Your task to perform on an android device: Open Google Chrome and click the shortcut for Amazon.com Image 0: 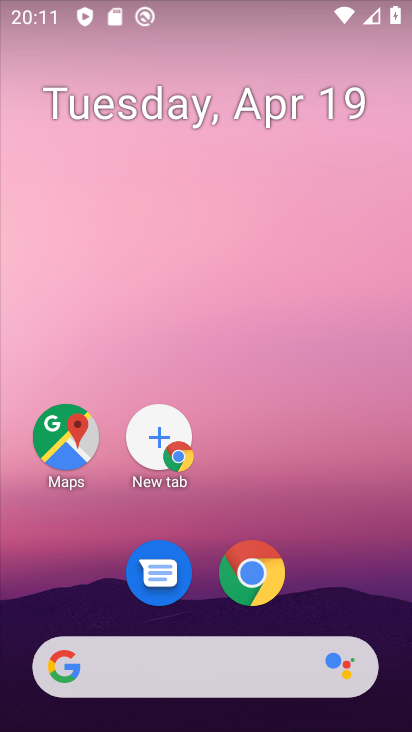
Step 0: click (250, 571)
Your task to perform on an android device: Open Google Chrome and click the shortcut for Amazon.com Image 1: 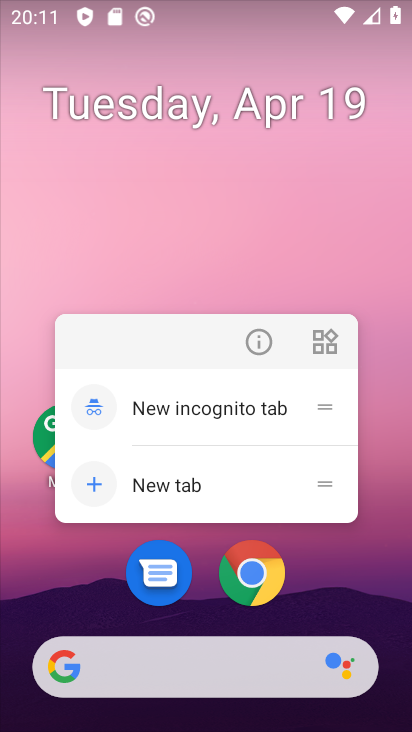
Step 1: click (254, 569)
Your task to perform on an android device: Open Google Chrome and click the shortcut for Amazon.com Image 2: 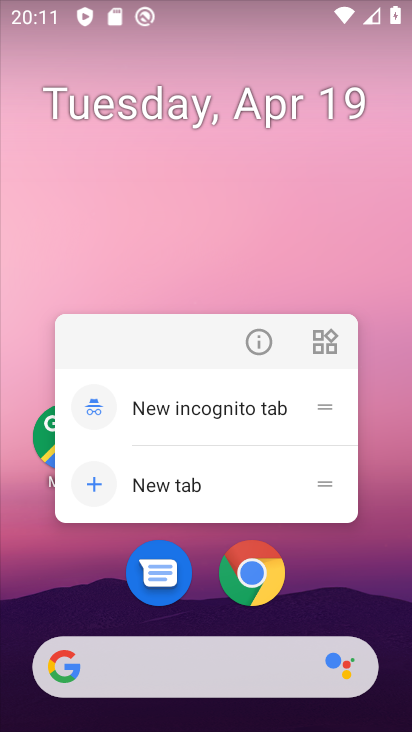
Step 2: click (254, 569)
Your task to perform on an android device: Open Google Chrome and click the shortcut for Amazon.com Image 3: 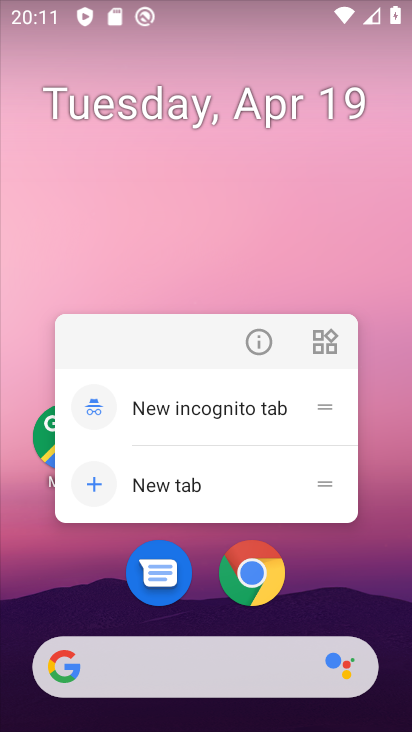
Step 3: click (254, 569)
Your task to perform on an android device: Open Google Chrome and click the shortcut for Amazon.com Image 4: 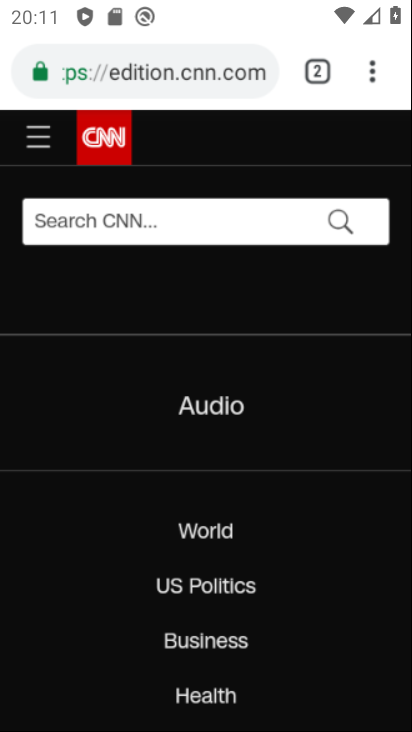
Step 4: click (254, 569)
Your task to perform on an android device: Open Google Chrome and click the shortcut for Amazon.com Image 5: 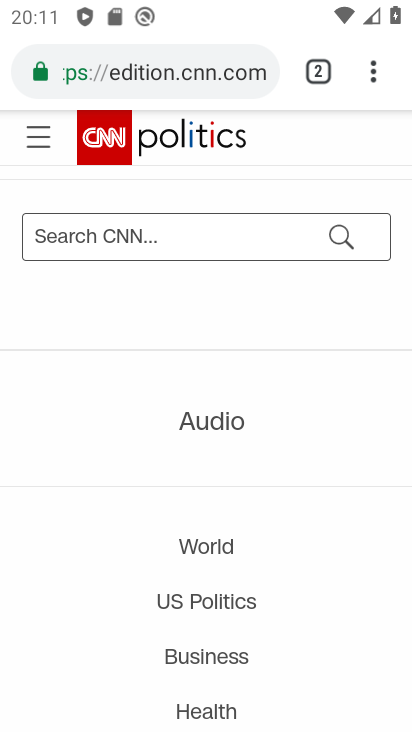
Step 5: click (369, 69)
Your task to perform on an android device: Open Google Chrome and click the shortcut for Amazon.com Image 6: 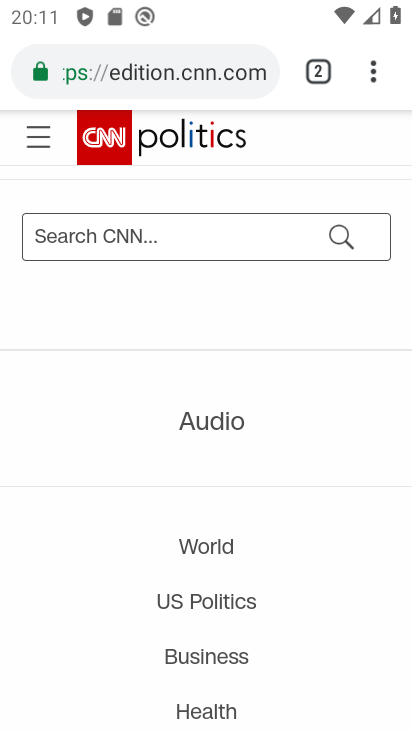
Step 6: click (373, 71)
Your task to perform on an android device: Open Google Chrome and click the shortcut for Amazon.com Image 7: 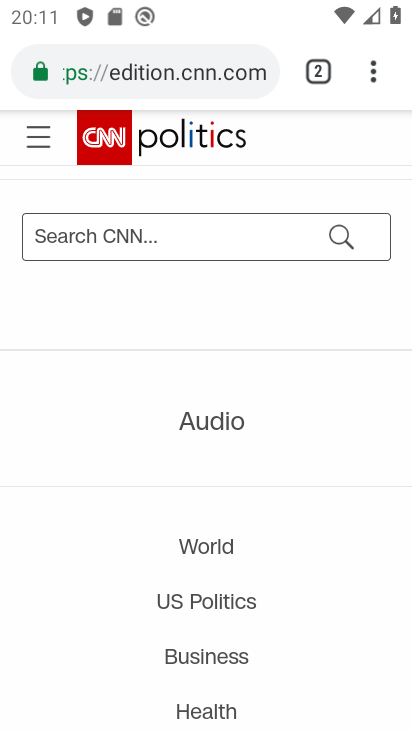
Step 7: click (373, 71)
Your task to perform on an android device: Open Google Chrome and click the shortcut for Amazon.com Image 8: 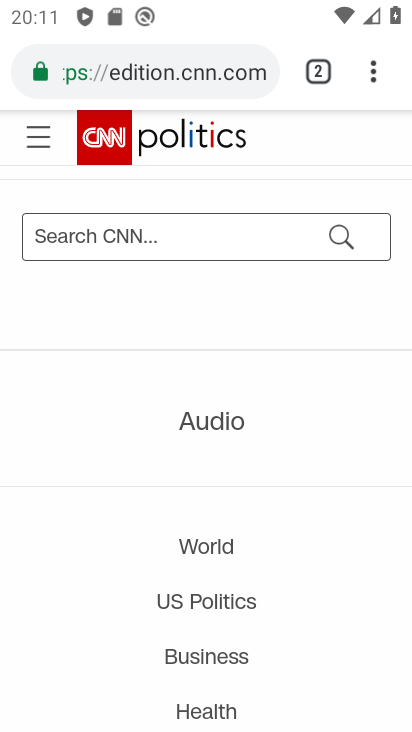
Step 8: click (371, 68)
Your task to perform on an android device: Open Google Chrome and click the shortcut for Amazon.com Image 9: 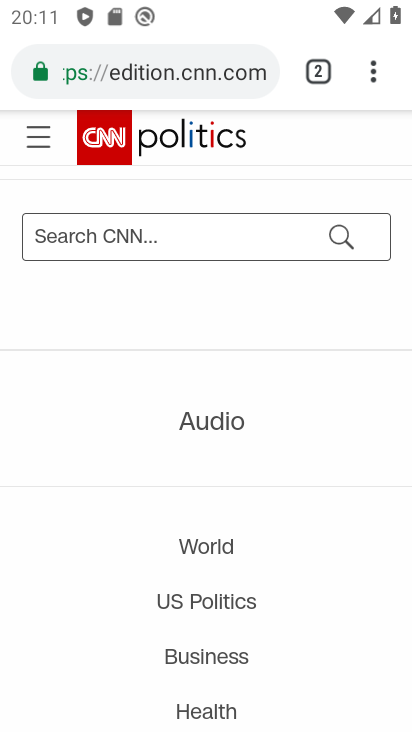
Step 9: click (371, 68)
Your task to perform on an android device: Open Google Chrome and click the shortcut for Amazon.com Image 10: 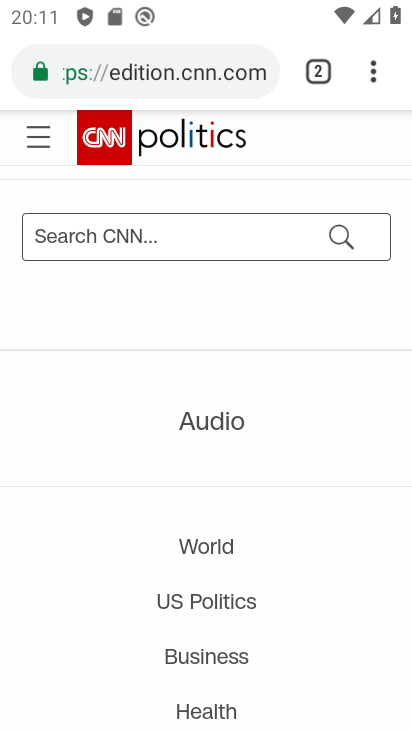
Step 10: click (371, 68)
Your task to perform on an android device: Open Google Chrome and click the shortcut for Amazon.com Image 11: 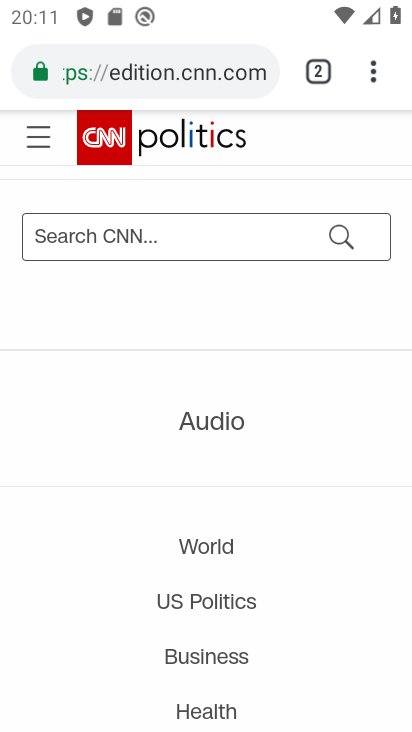
Step 11: click (374, 64)
Your task to perform on an android device: Open Google Chrome and click the shortcut for Amazon.com Image 12: 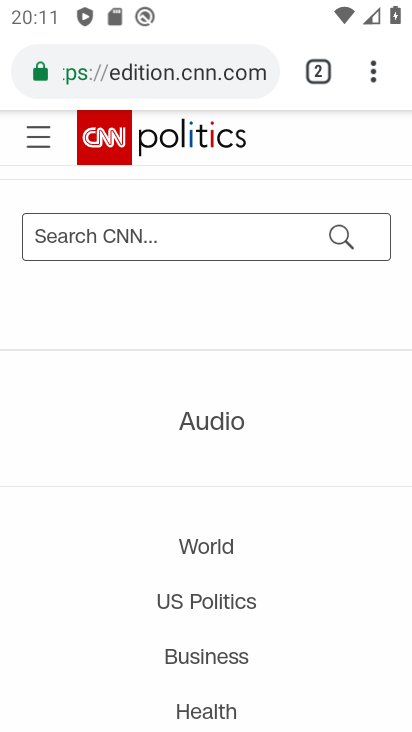
Step 12: click (372, 69)
Your task to perform on an android device: Open Google Chrome and click the shortcut for Amazon.com Image 13: 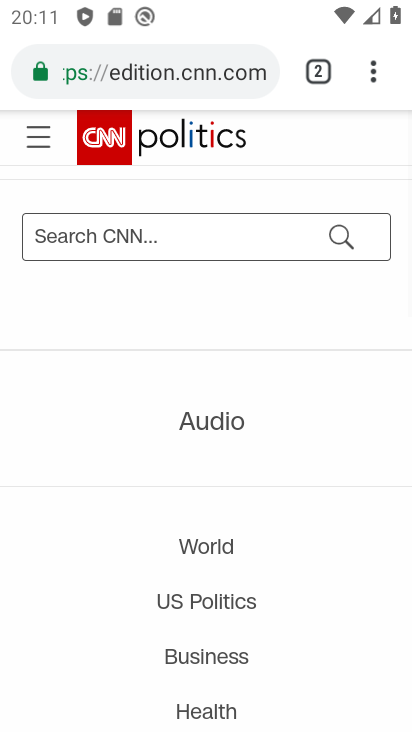
Step 13: click (372, 69)
Your task to perform on an android device: Open Google Chrome and click the shortcut for Amazon.com Image 14: 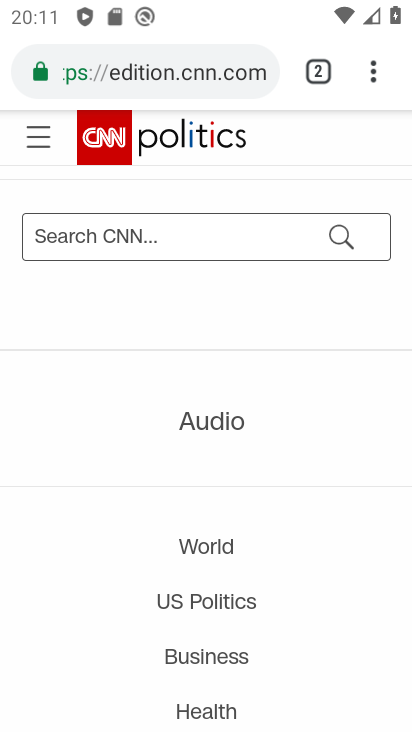
Step 14: click (372, 69)
Your task to perform on an android device: Open Google Chrome and click the shortcut for Amazon.com Image 15: 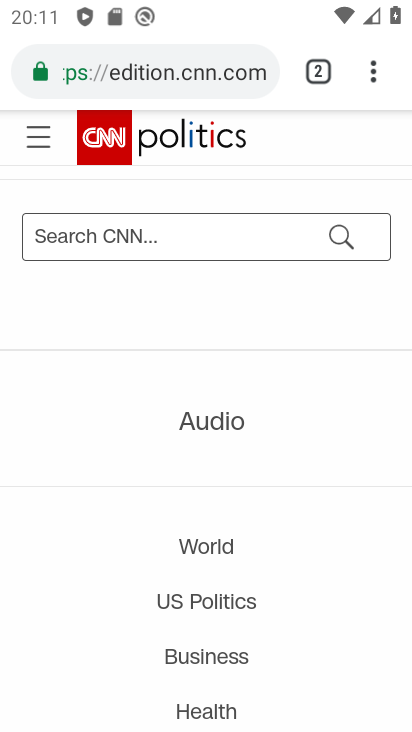
Step 15: click (372, 69)
Your task to perform on an android device: Open Google Chrome and click the shortcut for Amazon.com Image 16: 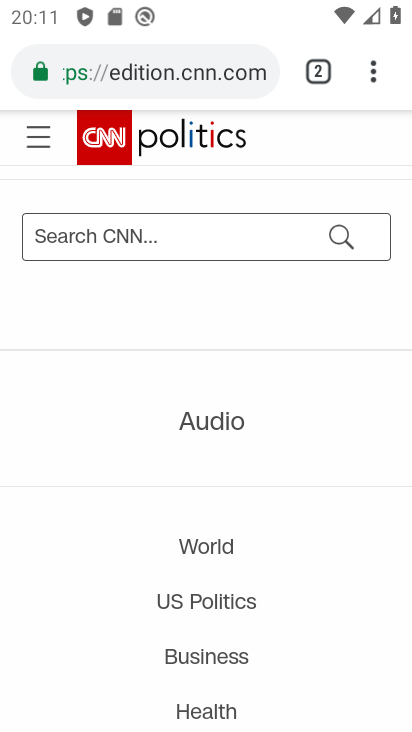
Step 16: click (372, 69)
Your task to perform on an android device: Open Google Chrome and click the shortcut for Amazon.com Image 17: 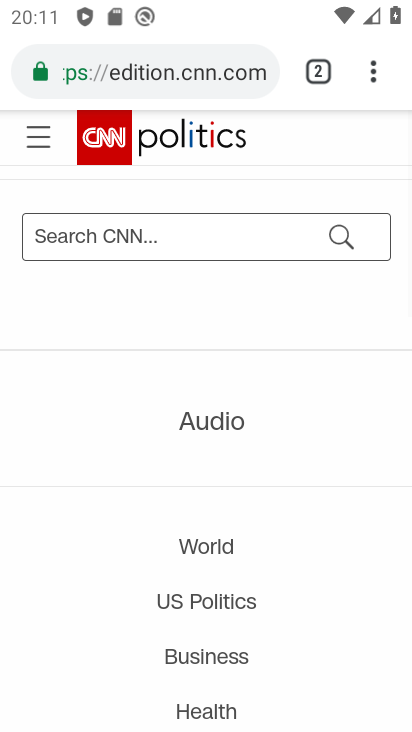
Step 17: click (372, 69)
Your task to perform on an android device: Open Google Chrome and click the shortcut for Amazon.com Image 18: 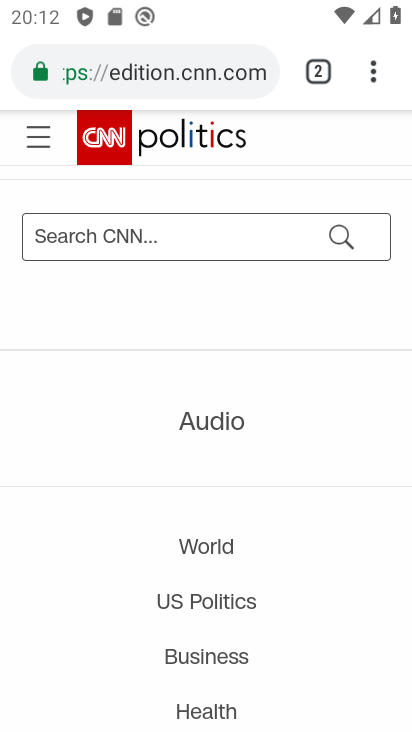
Step 18: click (372, 69)
Your task to perform on an android device: Open Google Chrome and click the shortcut for Amazon.com Image 19: 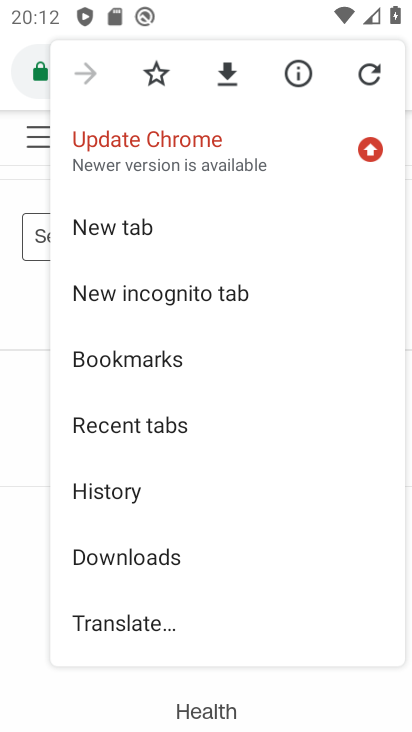
Step 19: click (127, 225)
Your task to perform on an android device: Open Google Chrome and click the shortcut for Amazon.com Image 20: 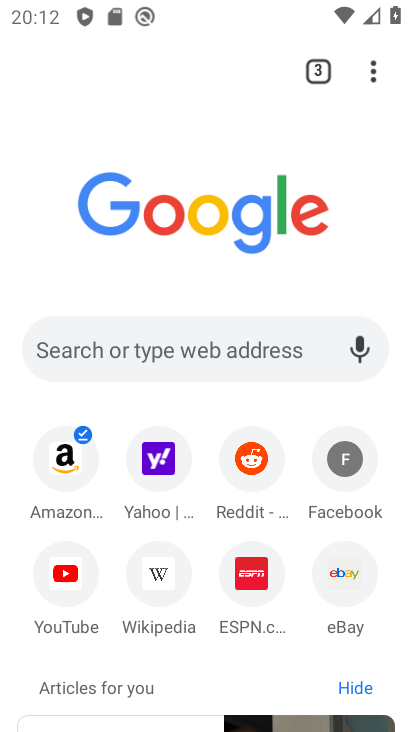
Step 20: click (75, 468)
Your task to perform on an android device: Open Google Chrome and click the shortcut for Amazon.com Image 21: 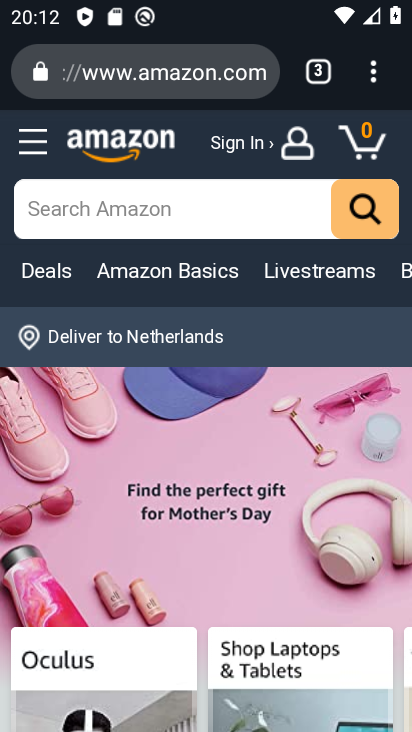
Step 21: task complete